Your task to perform on an android device: turn off picture-in-picture Image 0: 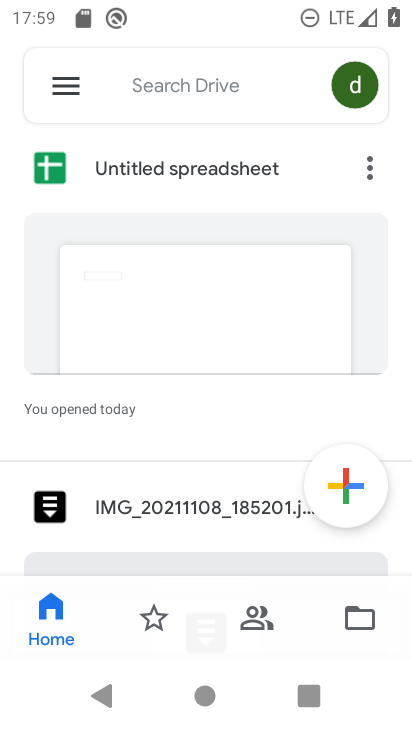
Step 0: press home button
Your task to perform on an android device: turn off picture-in-picture Image 1: 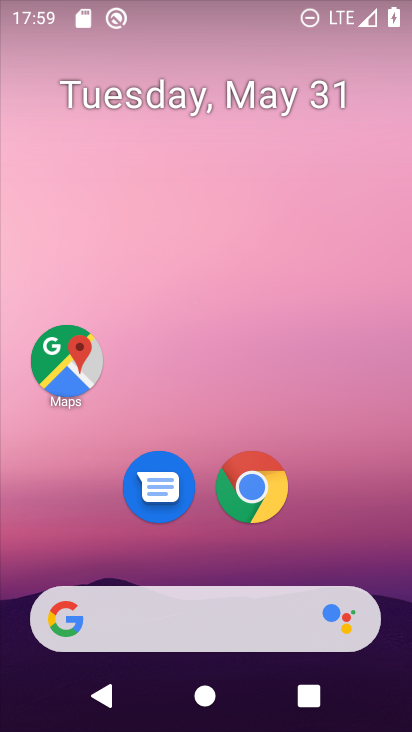
Step 1: drag from (340, 540) to (234, 103)
Your task to perform on an android device: turn off picture-in-picture Image 2: 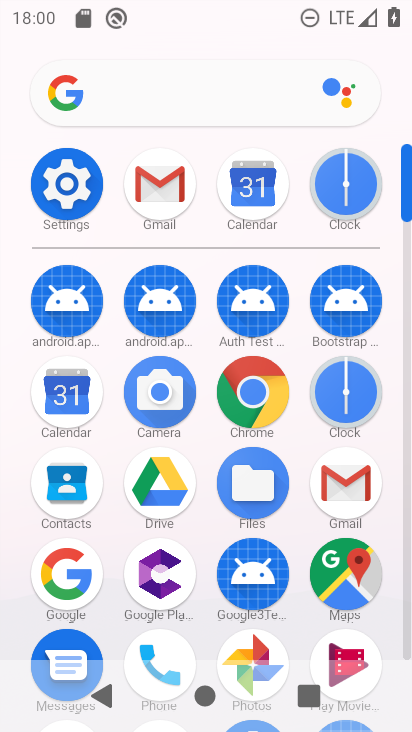
Step 2: click (67, 180)
Your task to perform on an android device: turn off picture-in-picture Image 3: 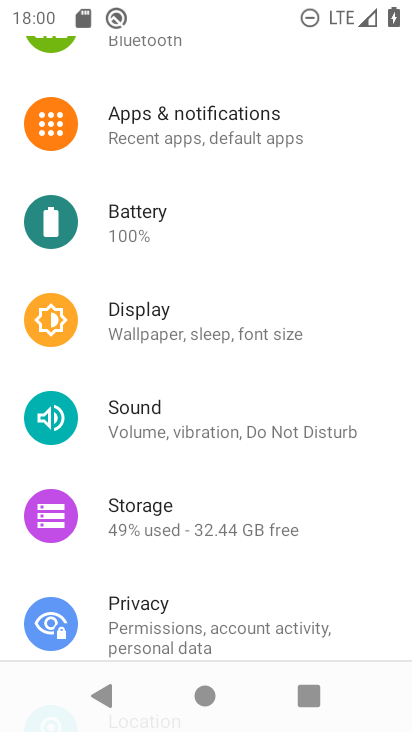
Step 3: click (202, 115)
Your task to perform on an android device: turn off picture-in-picture Image 4: 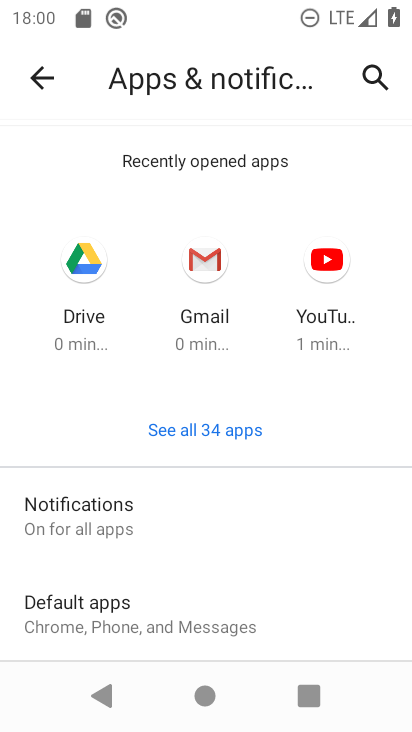
Step 4: drag from (220, 516) to (162, 213)
Your task to perform on an android device: turn off picture-in-picture Image 5: 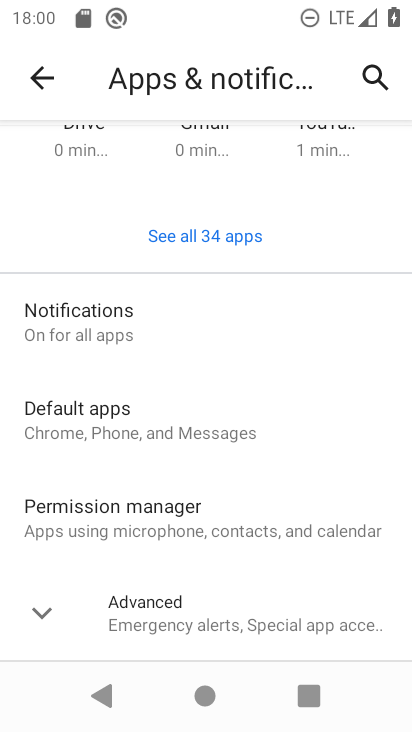
Step 5: click (46, 611)
Your task to perform on an android device: turn off picture-in-picture Image 6: 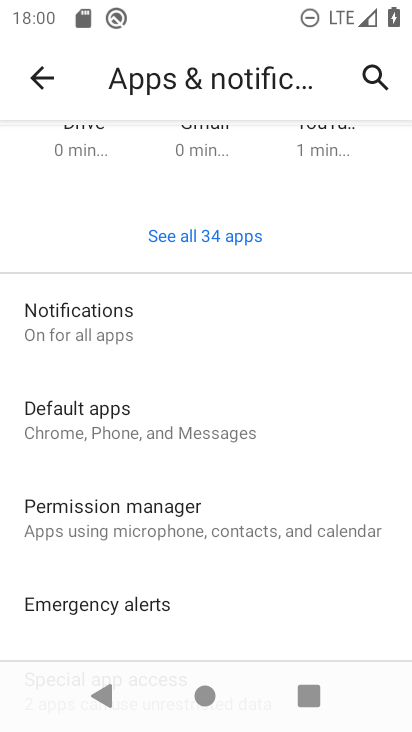
Step 6: drag from (238, 566) to (197, 255)
Your task to perform on an android device: turn off picture-in-picture Image 7: 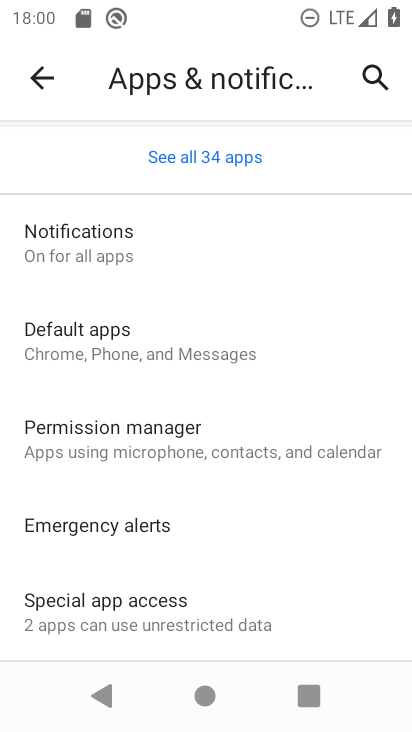
Step 7: click (102, 626)
Your task to perform on an android device: turn off picture-in-picture Image 8: 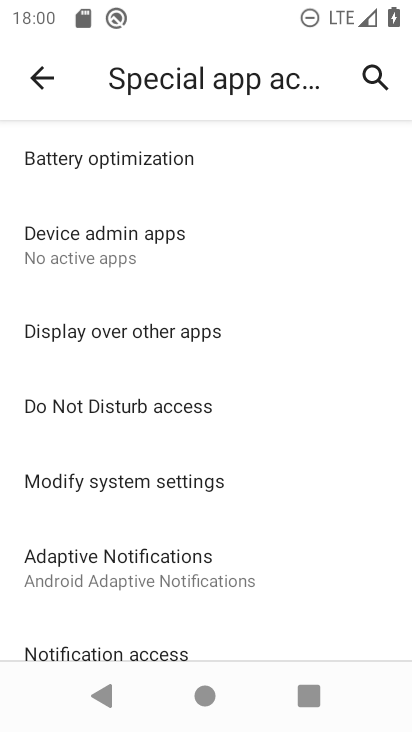
Step 8: drag from (262, 567) to (238, 211)
Your task to perform on an android device: turn off picture-in-picture Image 9: 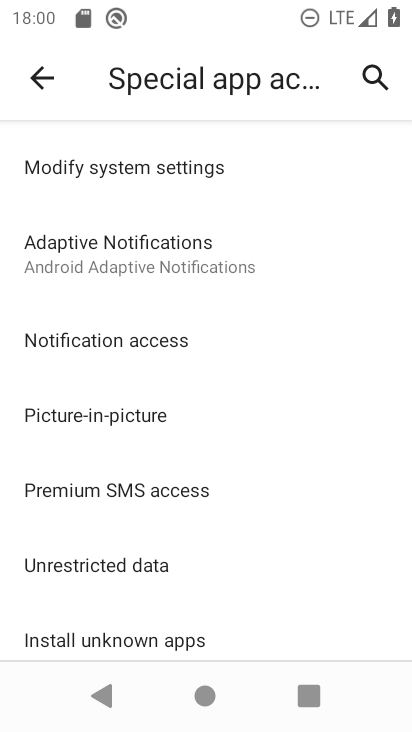
Step 9: drag from (204, 585) to (219, 382)
Your task to perform on an android device: turn off picture-in-picture Image 10: 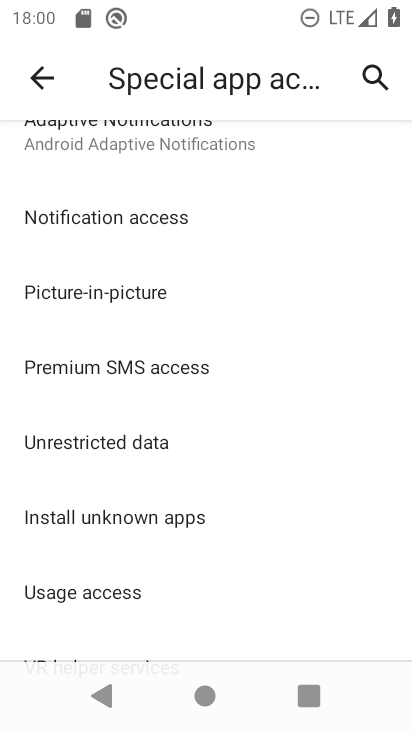
Step 10: click (106, 290)
Your task to perform on an android device: turn off picture-in-picture Image 11: 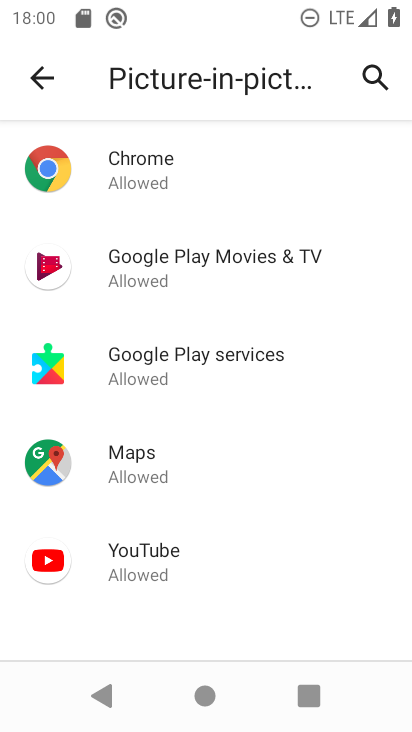
Step 11: click (155, 162)
Your task to perform on an android device: turn off picture-in-picture Image 12: 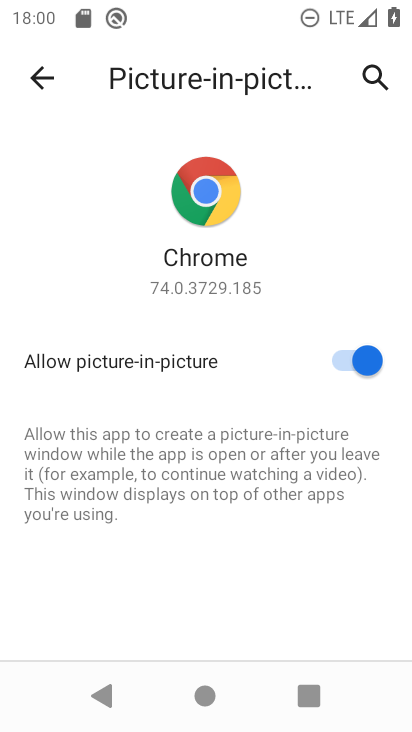
Step 12: click (365, 368)
Your task to perform on an android device: turn off picture-in-picture Image 13: 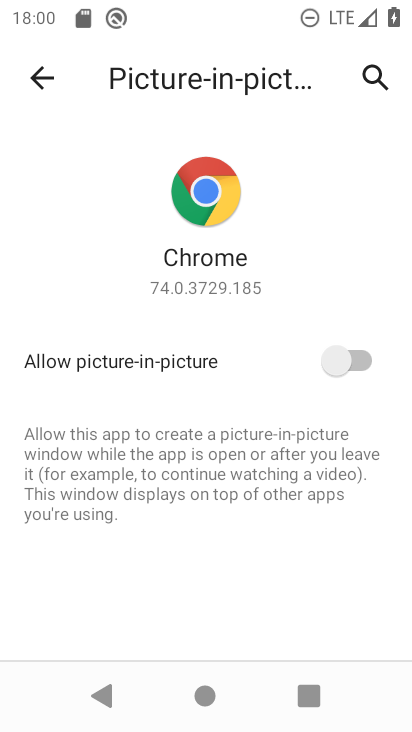
Step 13: click (38, 67)
Your task to perform on an android device: turn off picture-in-picture Image 14: 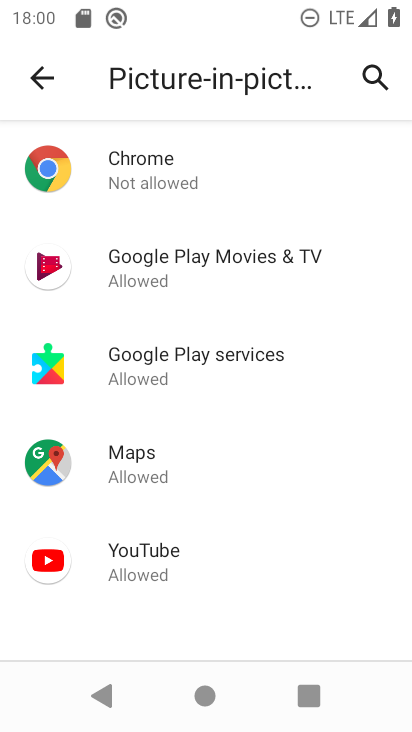
Step 14: click (129, 271)
Your task to perform on an android device: turn off picture-in-picture Image 15: 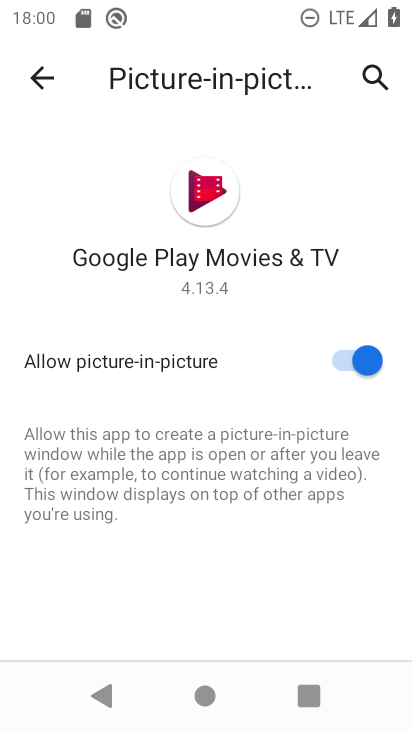
Step 15: click (336, 356)
Your task to perform on an android device: turn off picture-in-picture Image 16: 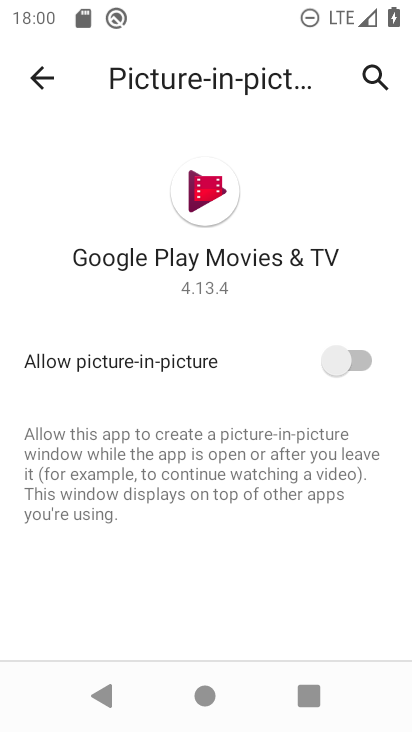
Step 16: click (46, 78)
Your task to perform on an android device: turn off picture-in-picture Image 17: 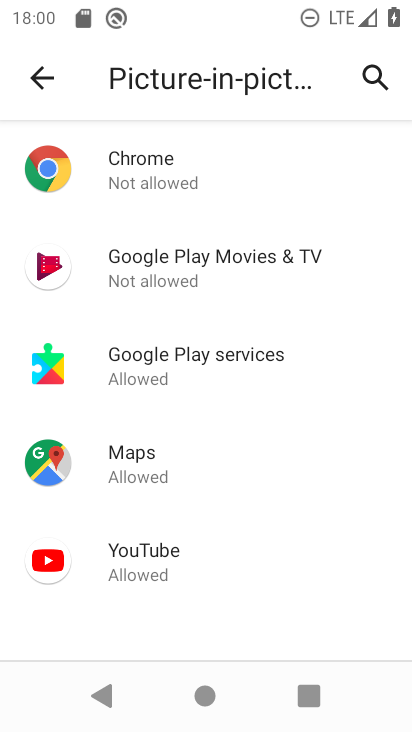
Step 17: click (158, 366)
Your task to perform on an android device: turn off picture-in-picture Image 18: 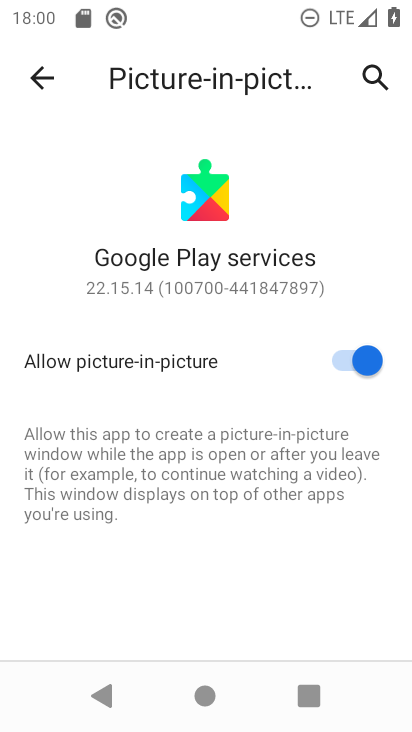
Step 18: click (359, 361)
Your task to perform on an android device: turn off picture-in-picture Image 19: 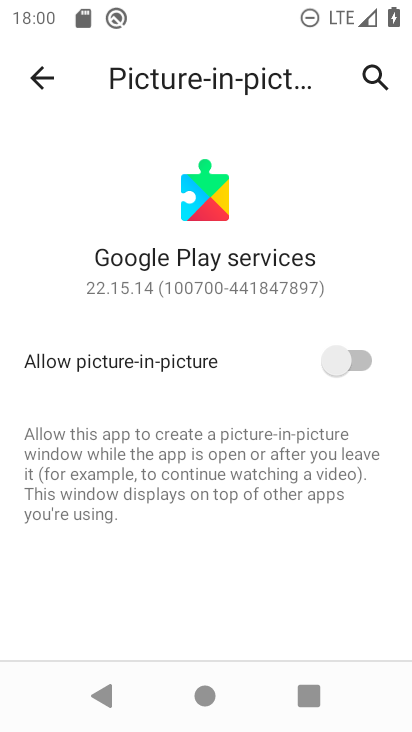
Step 19: click (36, 81)
Your task to perform on an android device: turn off picture-in-picture Image 20: 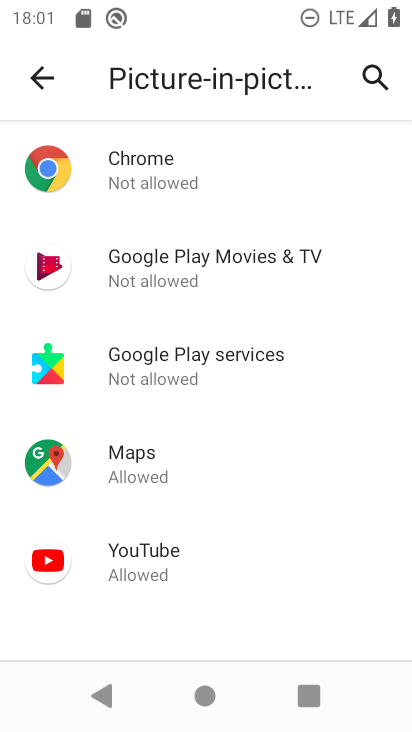
Step 20: click (137, 436)
Your task to perform on an android device: turn off picture-in-picture Image 21: 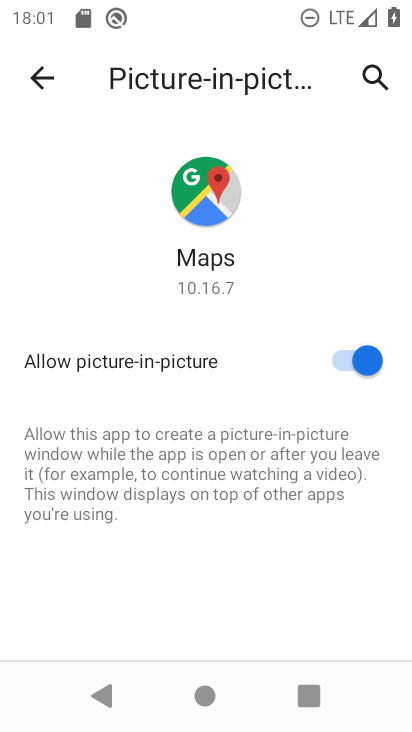
Step 21: click (348, 352)
Your task to perform on an android device: turn off picture-in-picture Image 22: 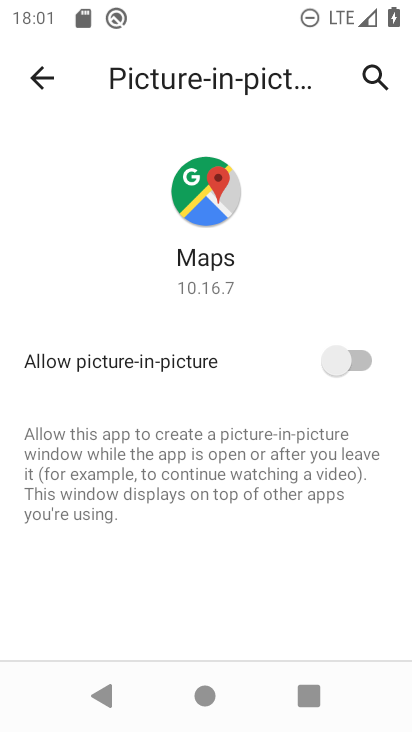
Step 22: click (43, 79)
Your task to perform on an android device: turn off picture-in-picture Image 23: 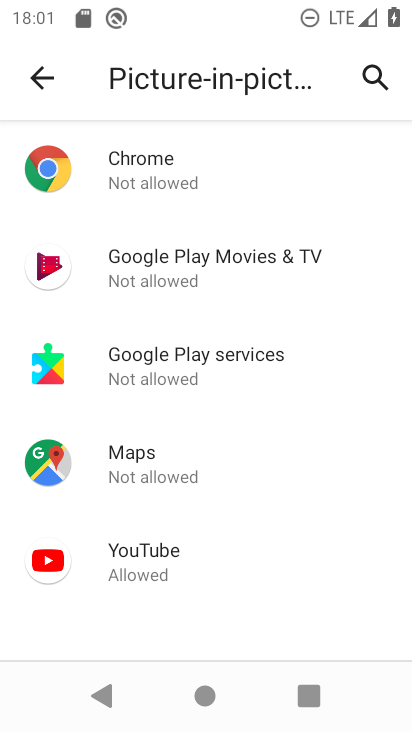
Step 23: click (132, 558)
Your task to perform on an android device: turn off picture-in-picture Image 24: 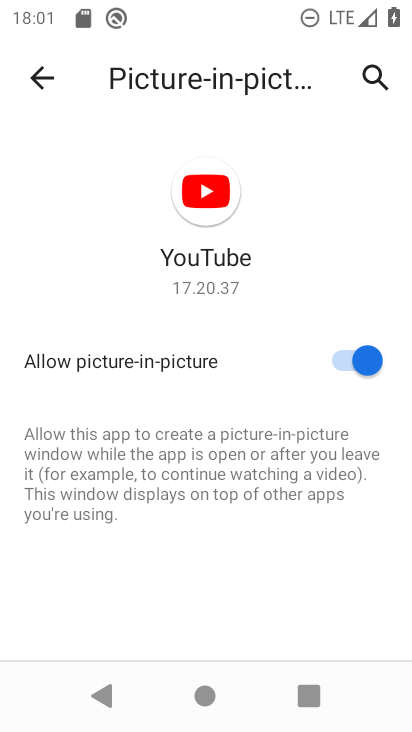
Step 24: click (358, 359)
Your task to perform on an android device: turn off picture-in-picture Image 25: 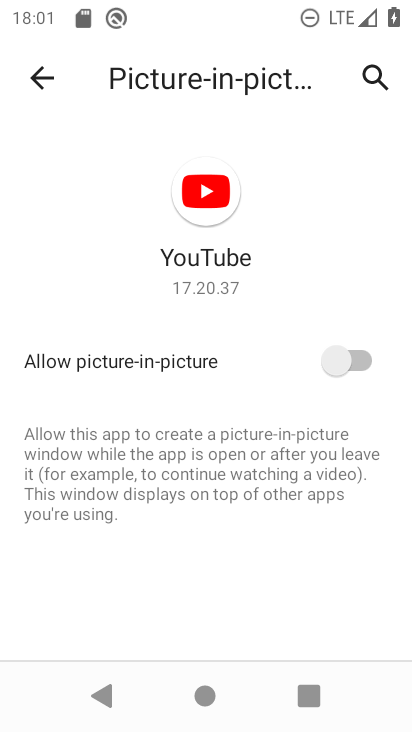
Step 25: click (35, 86)
Your task to perform on an android device: turn off picture-in-picture Image 26: 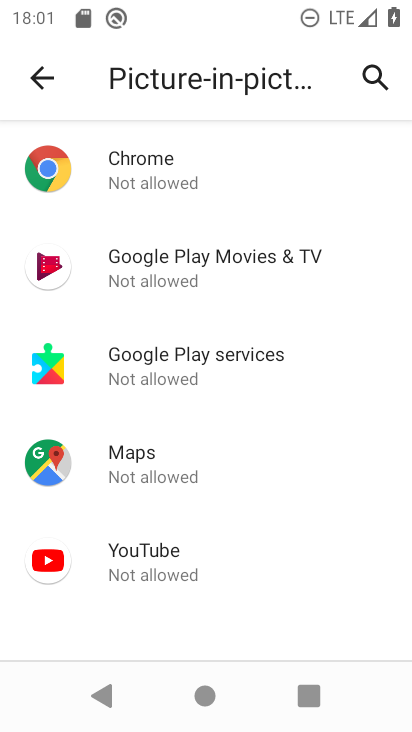
Step 26: task complete